Your task to perform on an android device: check storage Image 0: 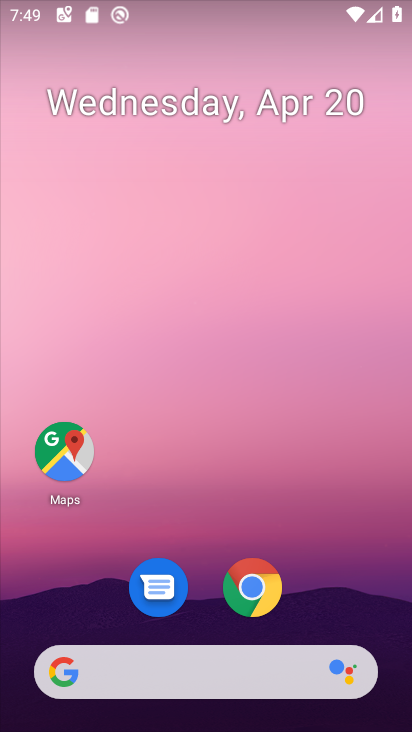
Step 0: drag from (373, 583) to (31, 198)
Your task to perform on an android device: check storage Image 1: 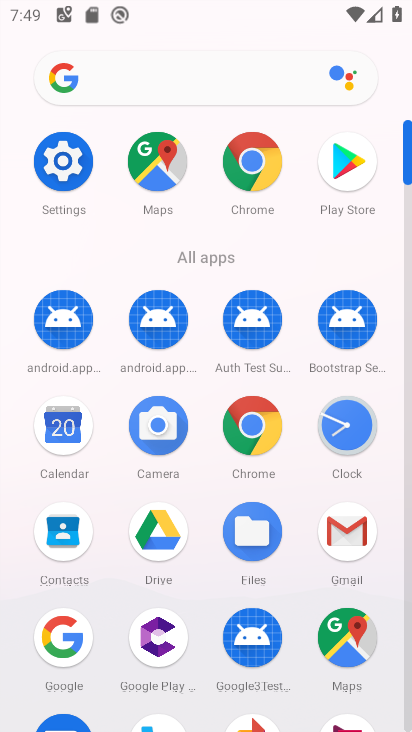
Step 1: click (65, 210)
Your task to perform on an android device: check storage Image 2: 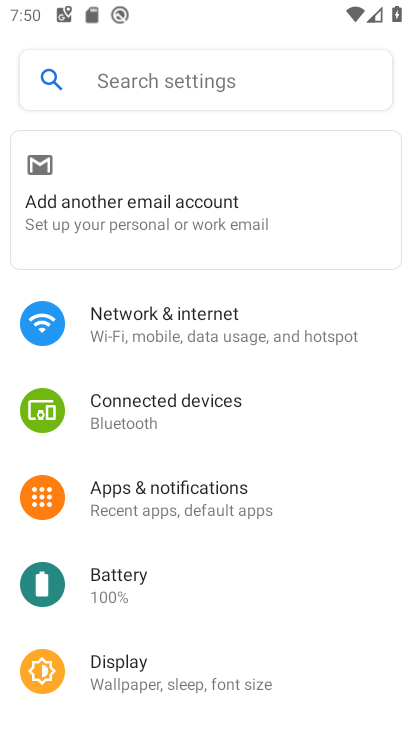
Step 2: drag from (210, 548) to (194, 196)
Your task to perform on an android device: check storage Image 3: 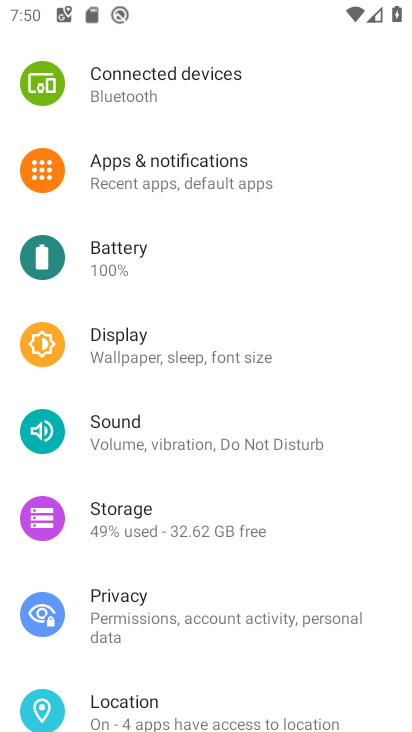
Step 3: click (239, 529)
Your task to perform on an android device: check storage Image 4: 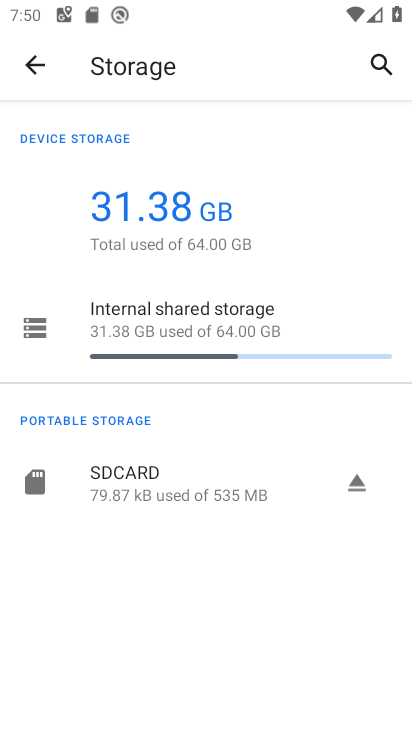
Step 4: task complete